Your task to perform on an android device: Go to wifi settings Image 0: 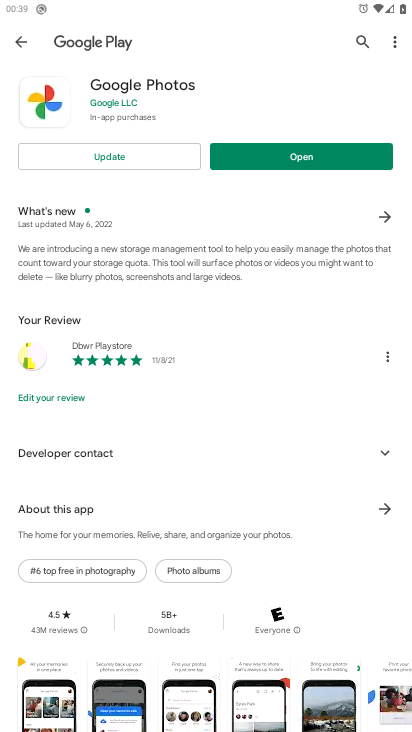
Step 0: press home button
Your task to perform on an android device: Go to wifi settings Image 1: 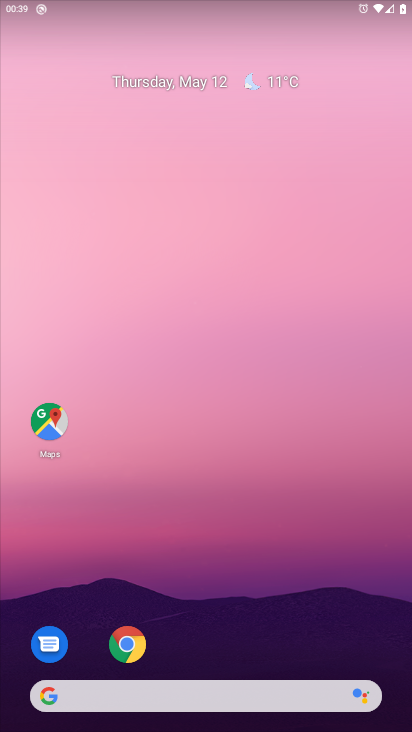
Step 1: drag from (210, 12) to (210, 552)
Your task to perform on an android device: Go to wifi settings Image 2: 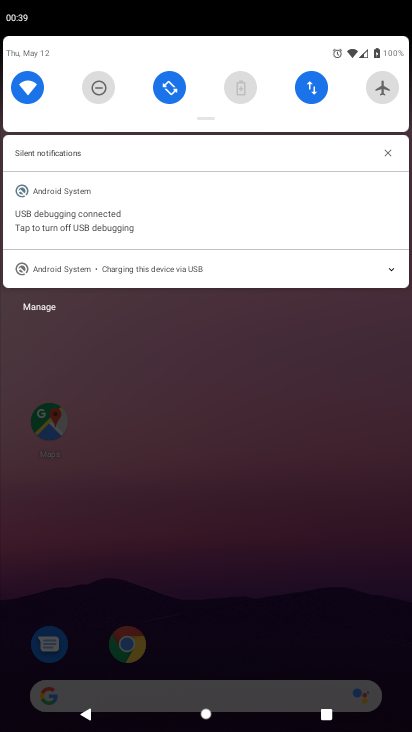
Step 2: drag from (196, 565) to (203, 261)
Your task to perform on an android device: Go to wifi settings Image 3: 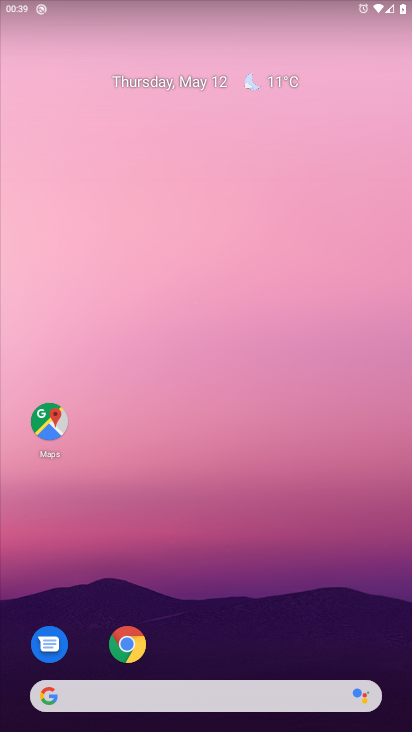
Step 3: drag from (193, 658) to (224, 94)
Your task to perform on an android device: Go to wifi settings Image 4: 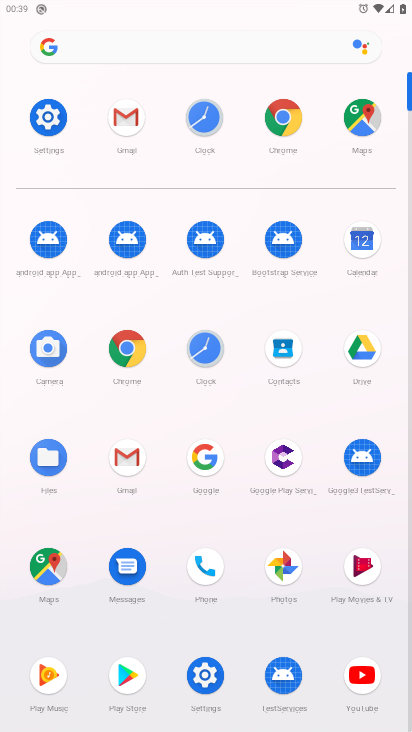
Step 4: click (44, 110)
Your task to perform on an android device: Go to wifi settings Image 5: 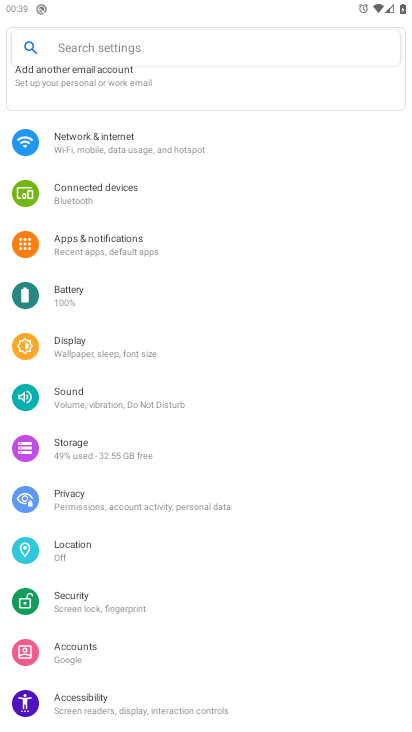
Step 5: click (100, 150)
Your task to perform on an android device: Go to wifi settings Image 6: 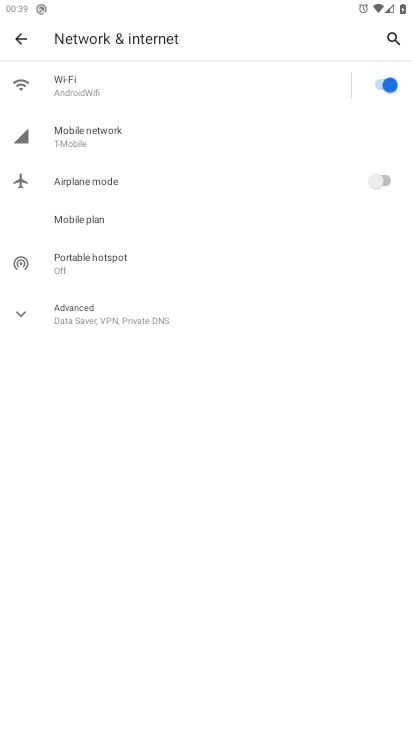
Step 6: click (100, 80)
Your task to perform on an android device: Go to wifi settings Image 7: 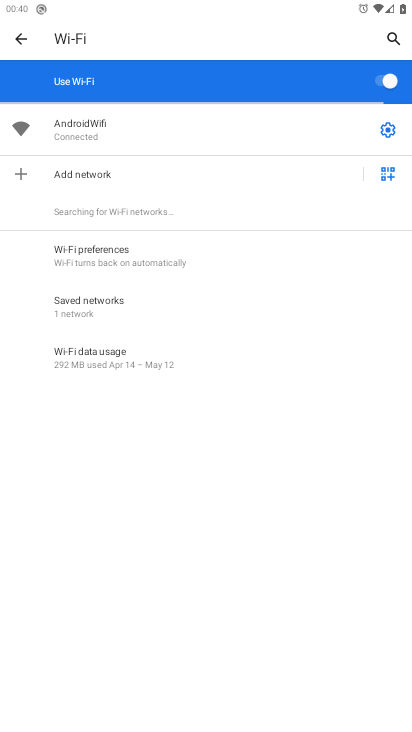
Step 7: task complete